Your task to perform on an android device: Open the Play Movies app and select the watchlist tab. Image 0: 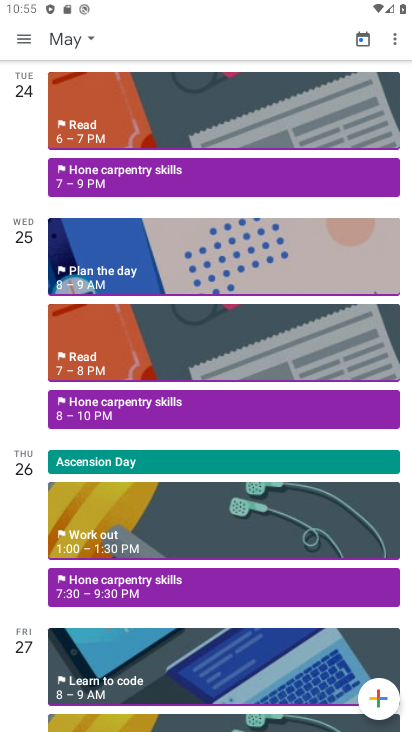
Step 0: press home button
Your task to perform on an android device: Open the Play Movies app and select the watchlist tab. Image 1: 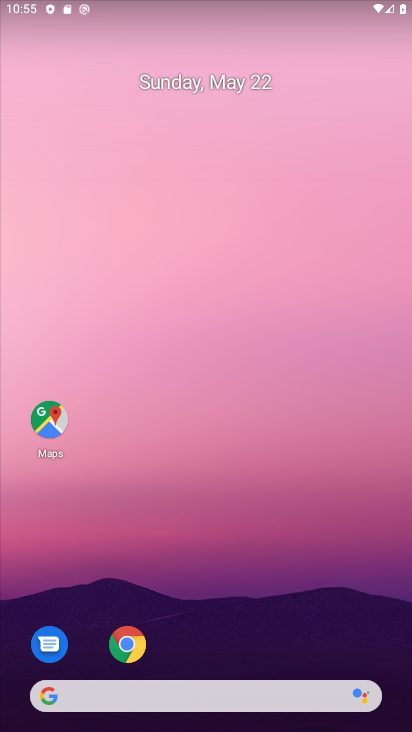
Step 1: drag from (334, 635) to (255, 123)
Your task to perform on an android device: Open the Play Movies app and select the watchlist tab. Image 2: 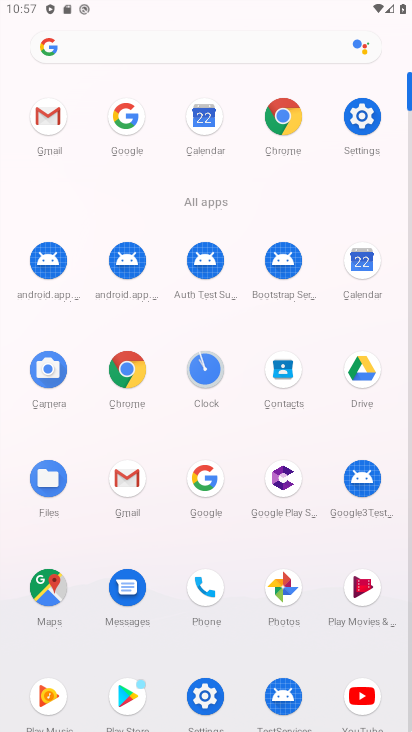
Step 2: click (359, 604)
Your task to perform on an android device: Open the Play Movies app and select the watchlist tab. Image 3: 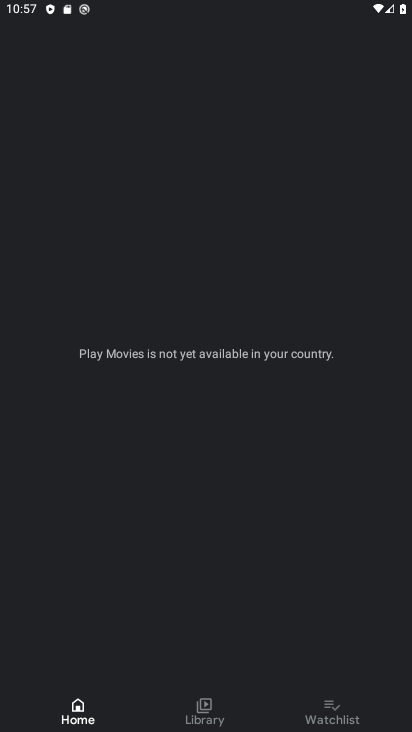
Step 3: click (339, 701)
Your task to perform on an android device: Open the Play Movies app and select the watchlist tab. Image 4: 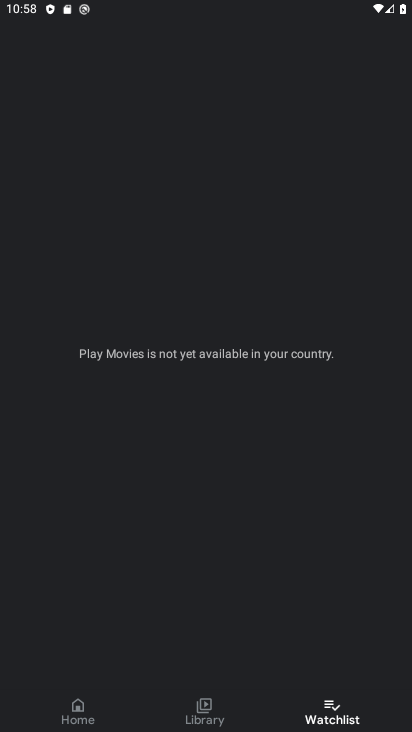
Step 4: task complete